Your task to perform on an android device: turn off notifications in google photos Image 0: 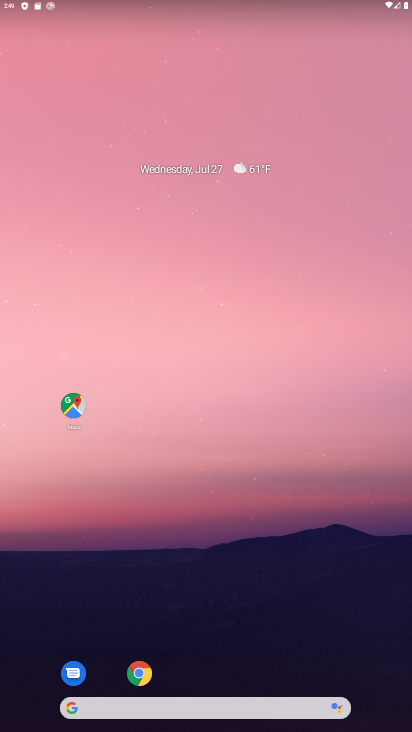
Step 0: drag from (349, 651) to (239, 187)
Your task to perform on an android device: turn off notifications in google photos Image 1: 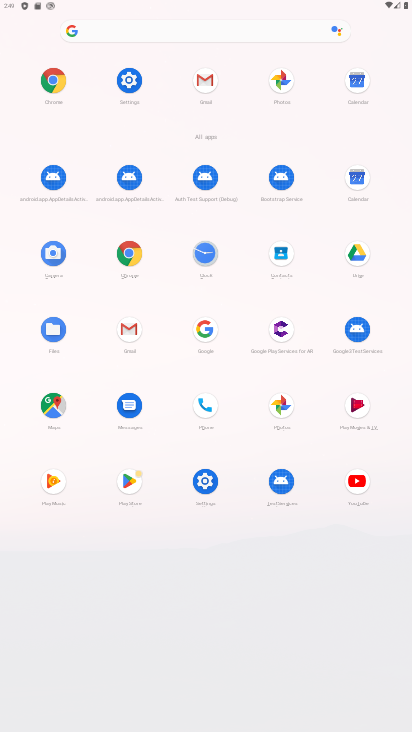
Step 1: click (282, 407)
Your task to perform on an android device: turn off notifications in google photos Image 2: 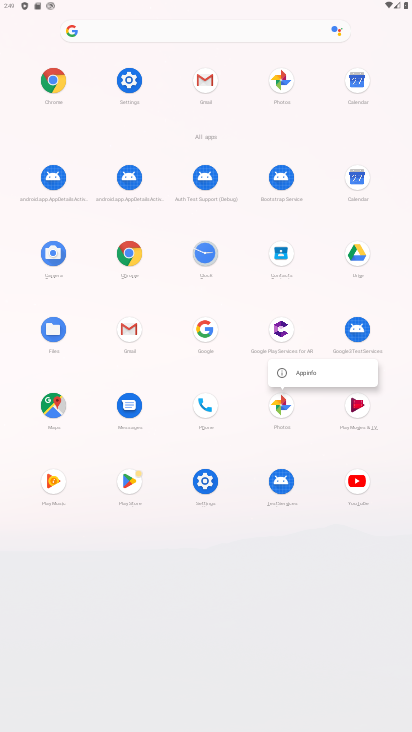
Step 2: click (296, 368)
Your task to perform on an android device: turn off notifications in google photos Image 3: 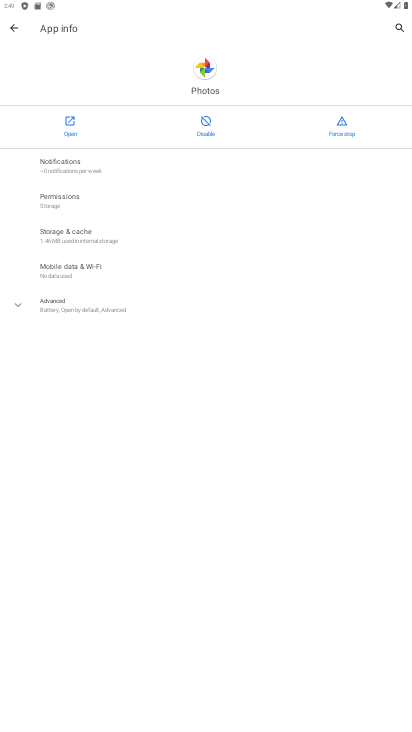
Step 3: click (55, 158)
Your task to perform on an android device: turn off notifications in google photos Image 4: 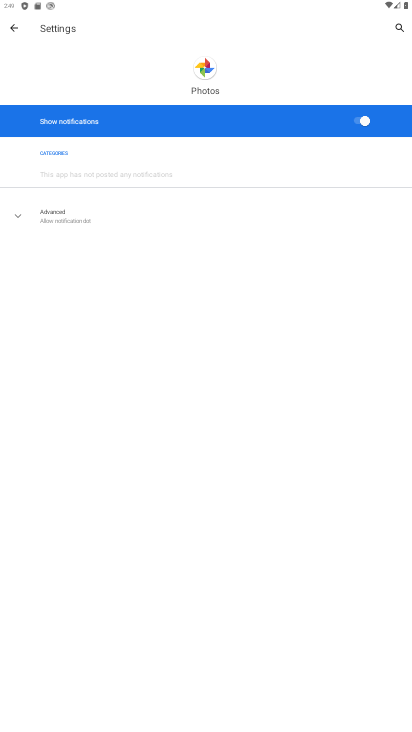
Step 4: click (367, 124)
Your task to perform on an android device: turn off notifications in google photos Image 5: 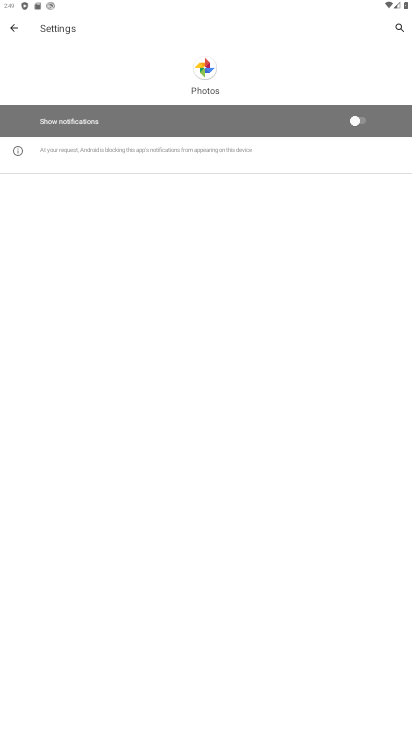
Step 5: task complete